Your task to perform on an android device: turn pop-ups on in chrome Image 0: 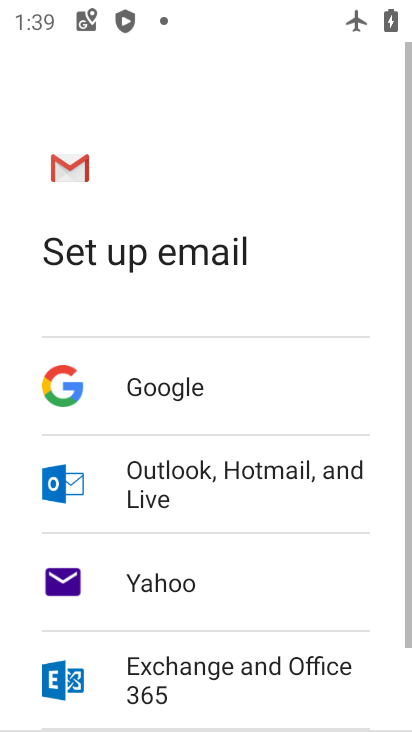
Step 0: press home button
Your task to perform on an android device: turn pop-ups on in chrome Image 1: 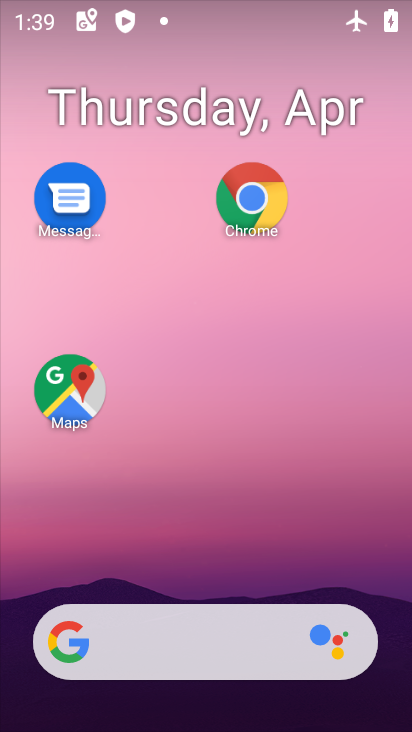
Step 1: drag from (190, 585) to (257, 8)
Your task to perform on an android device: turn pop-ups on in chrome Image 2: 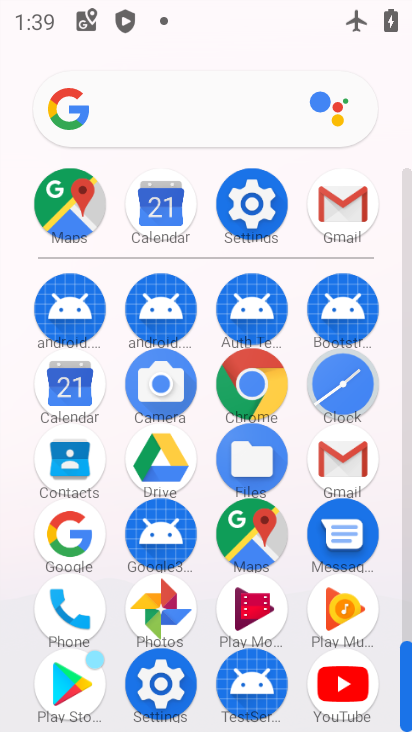
Step 2: click (265, 389)
Your task to perform on an android device: turn pop-ups on in chrome Image 3: 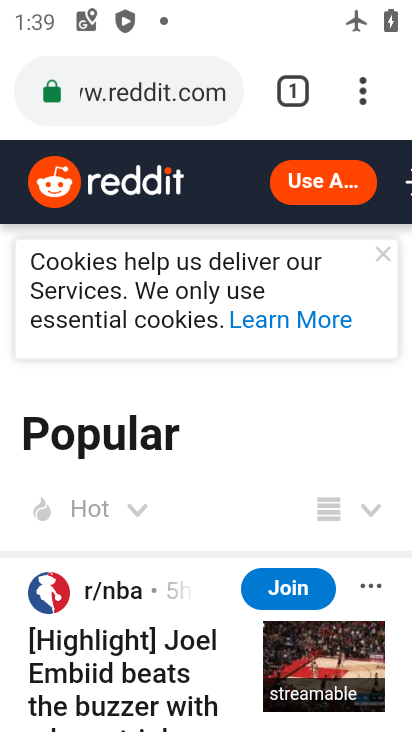
Step 3: drag from (368, 85) to (113, 559)
Your task to perform on an android device: turn pop-ups on in chrome Image 4: 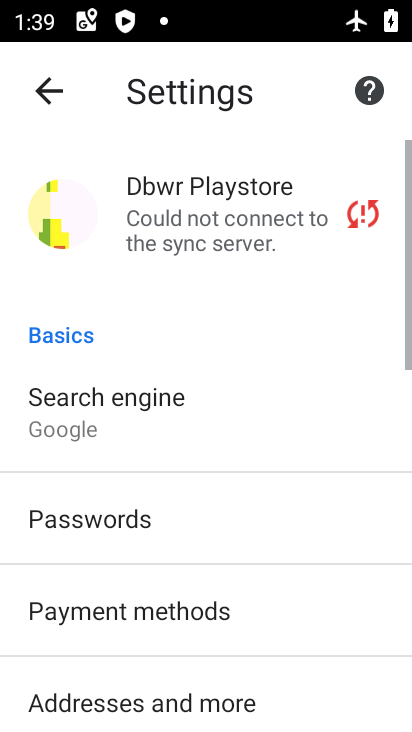
Step 4: drag from (113, 559) to (90, 123)
Your task to perform on an android device: turn pop-ups on in chrome Image 5: 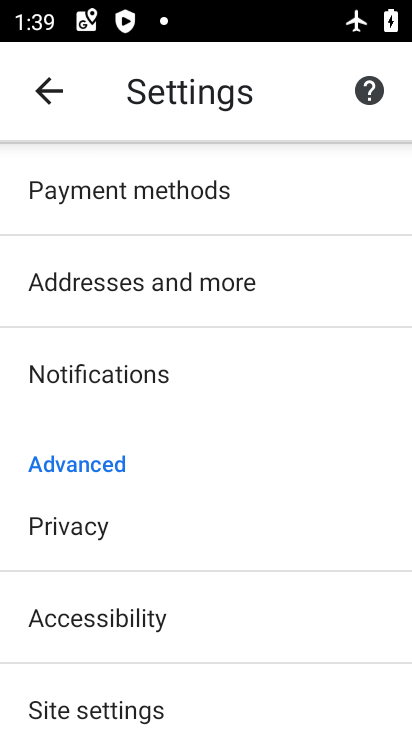
Step 5: click (127, 684)
Your task to perform on an android device: turn pop-ups on in chrome Image 6: 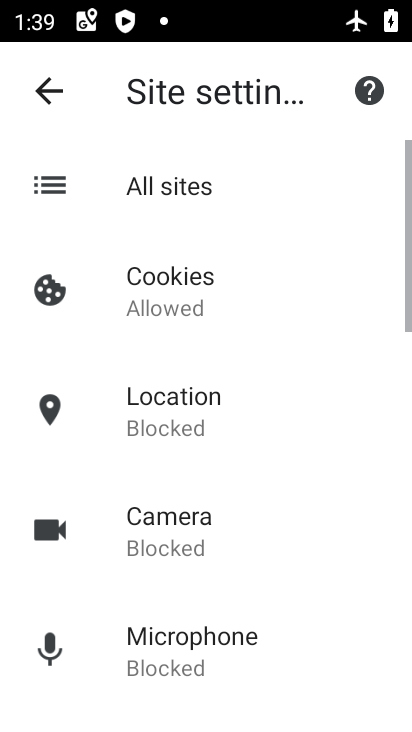
Step 6: drag from (215, 547) to (180, 108)
Your task to perform on an android device: turn pop-ups on in chrome Image 7: 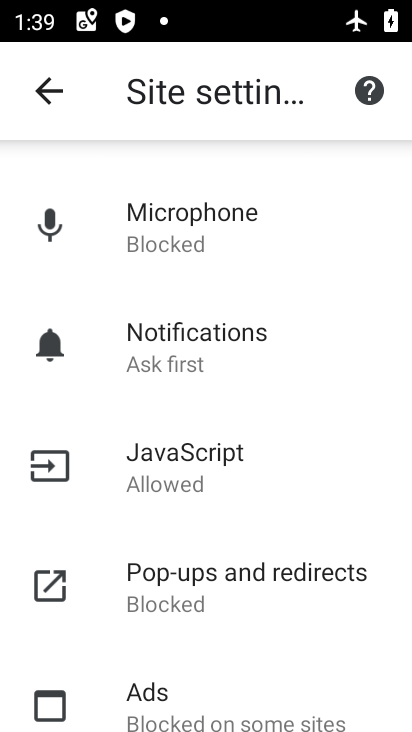
Step 7: click (178, 597)
Your task to perform on an android device: turn pop-ups on in chrome Image 8: 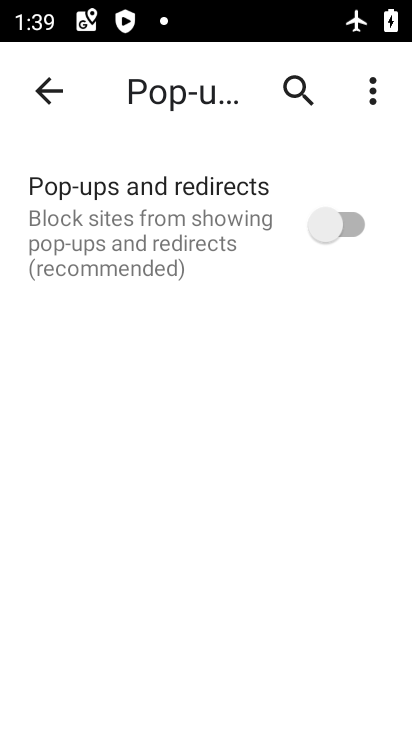
Step 8: click (359, 215)
Your task to perform on an android device: turn pop-ups on in chrome Image 9: 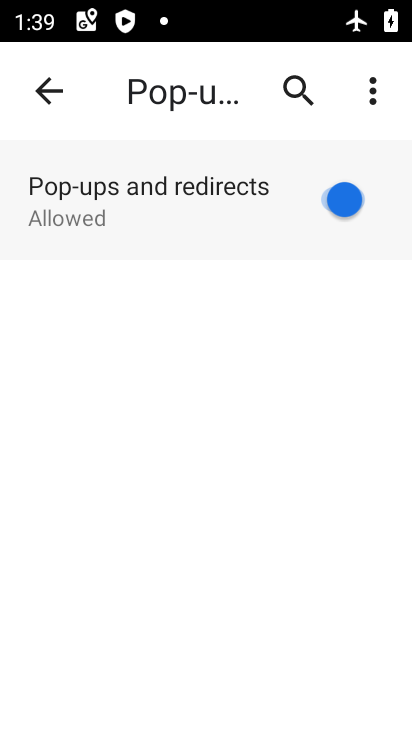
Step 9: task complete